Your task to perform on an android device: check the backup settings in the google photos Image 0: 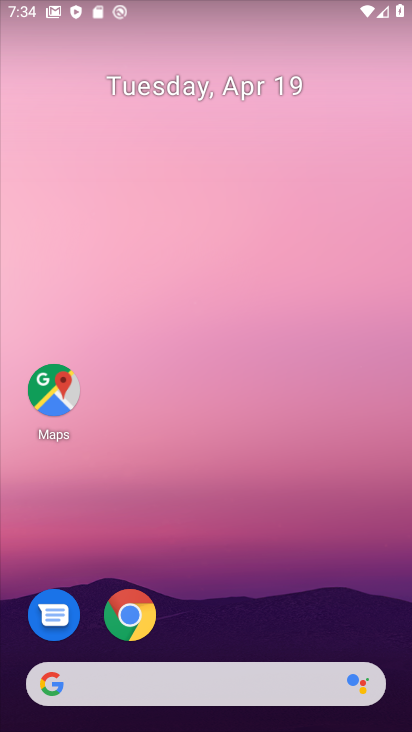
Step 0: drag from (230, 617) to (264, 132)
Your task to perform on an android device: check the backup settings in the google photos Image 1: 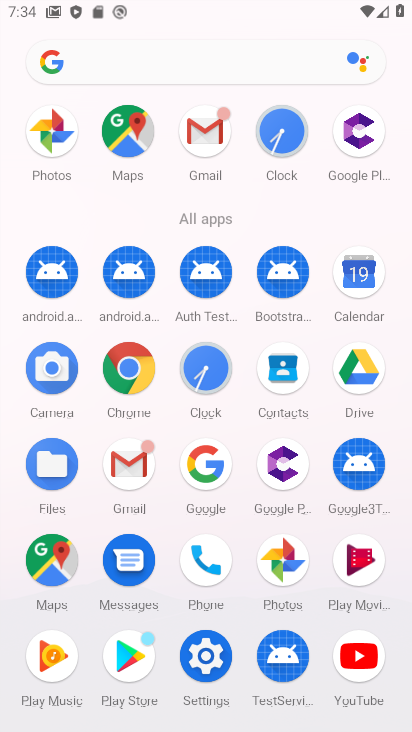
Step 1: click (55, 137)
Your task to perform on an android device: check the backup settings in the google photos Image 2: 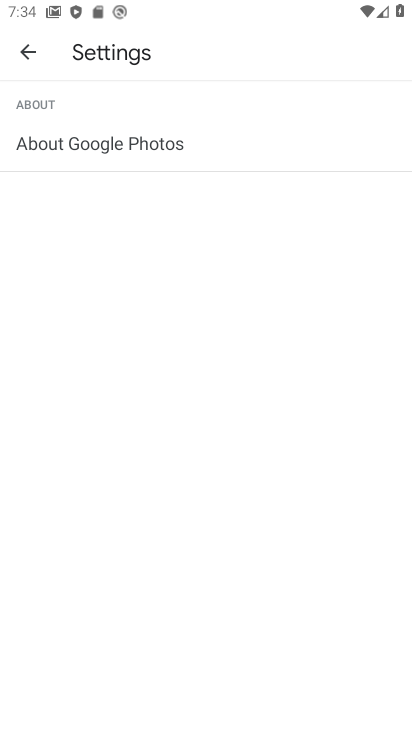
Step 2: click (31, 53)
Your task to perform on an android device: check the backup settings in the google photos Image 3: 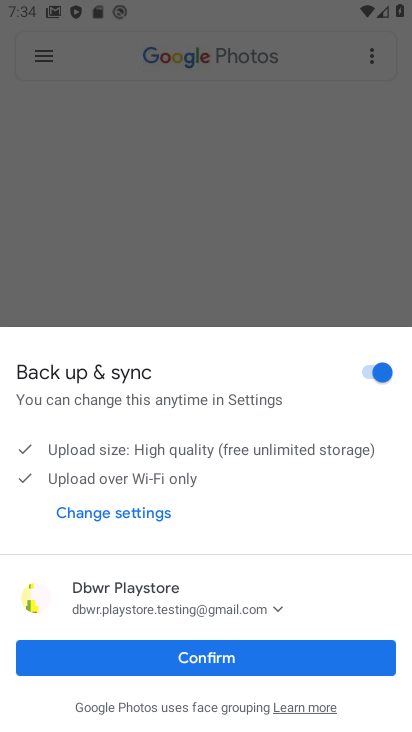
Step 3: click (147, 518)
Your task to perform on an android device: check the backup settings in the google photos Image 4: 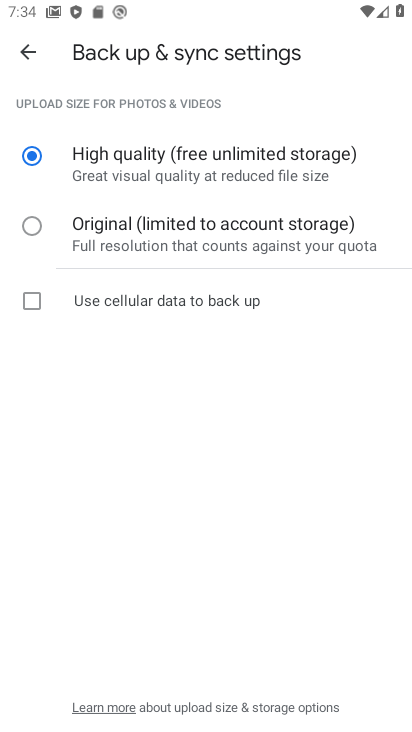
Step 4: task complete